Your task to perform on an android device: turn off picture-in-picture Image 0: 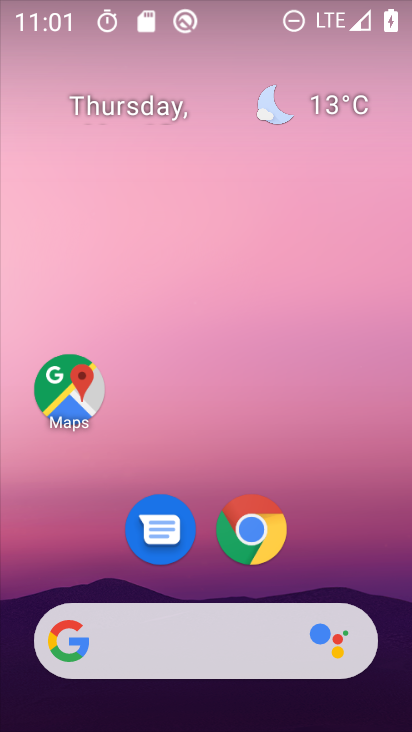
Step 0: drag from (330, 522) to (219, 165)
Your task to perform on an android device: turn off picture-in-picture Image 1: 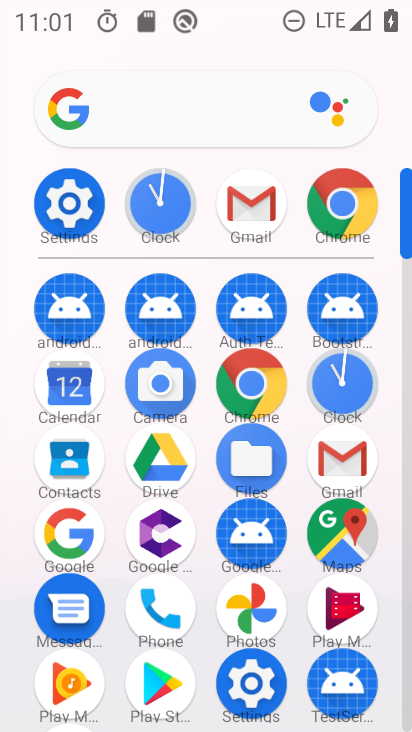
Step 1: click (62, 232)
Your task to perform on an android device: turn off picture-in-picture Image 2: 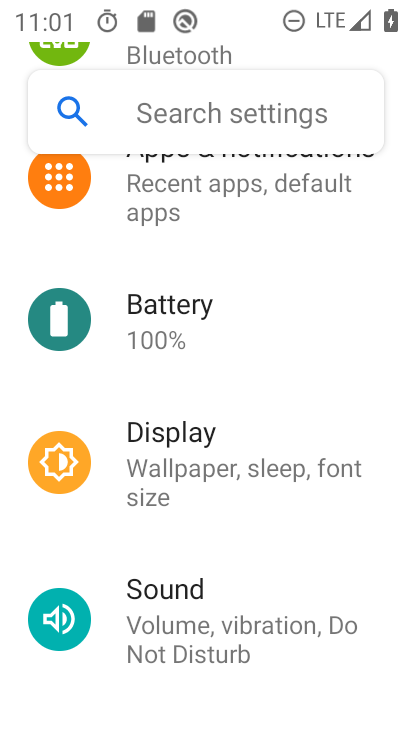
Step 2: task complete